Your task to perform on an android device: open sync settings in chrome Image 0: 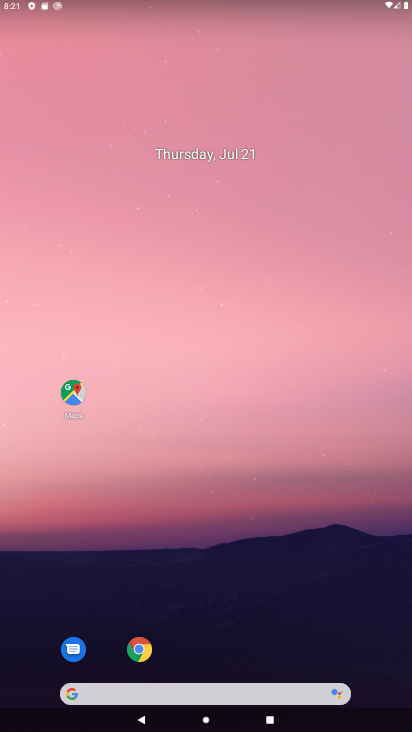
Step 0: click (144, 649)
Your task to perform on an android device: open sync settings in chrome Image 1: 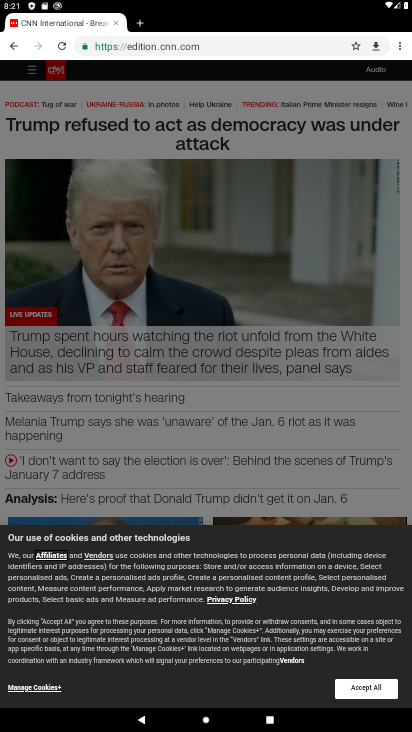
Step 1: click (399, 54)
Your task to perform on an android device: open sync settings in chrome Image 2: 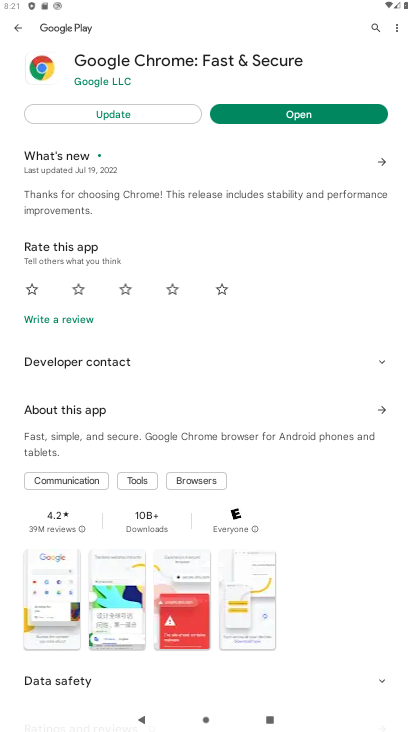
Step 2: click (257, 120)
Your task to perform on an android device: open sync settings in chrome Image 3: 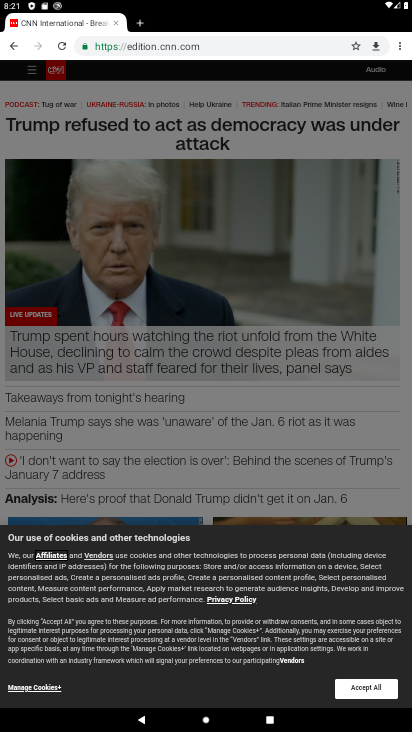
Step 3: click (394, 43)
Your task to perform on an android device: open sync settings in chrome Image 4: 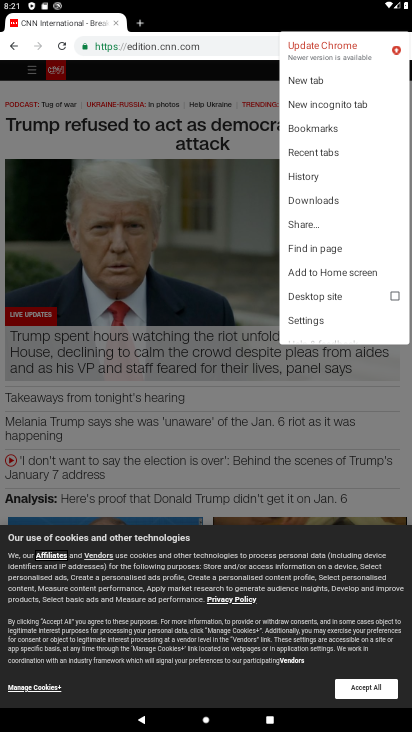
Step 4: click (306, 323)
Your task to perform on an android device: open sync settings in chrome Image 5: 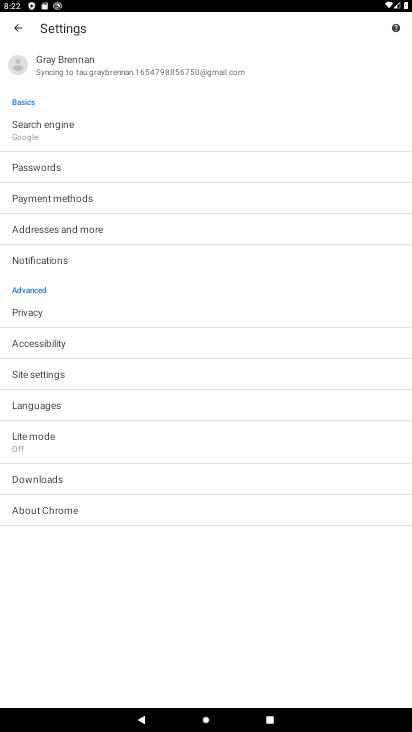
Step 5: click (73, 130)
Your task to perform on an android device: open sync settings in chrome Image 6: 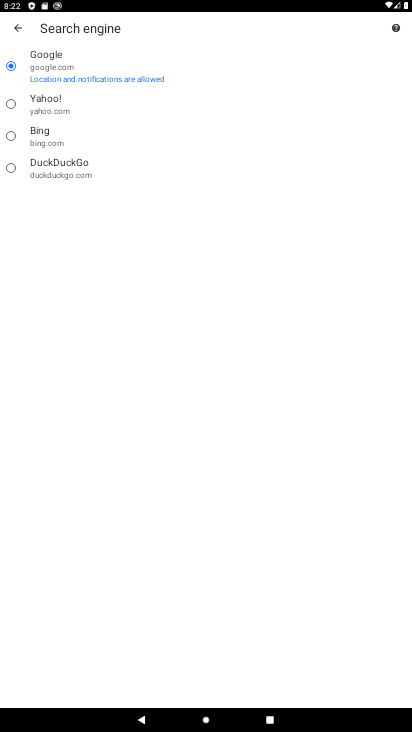
Step 6: click (24, 15)
Your task to perform on an android device: open sync settings in chrome Image 7: 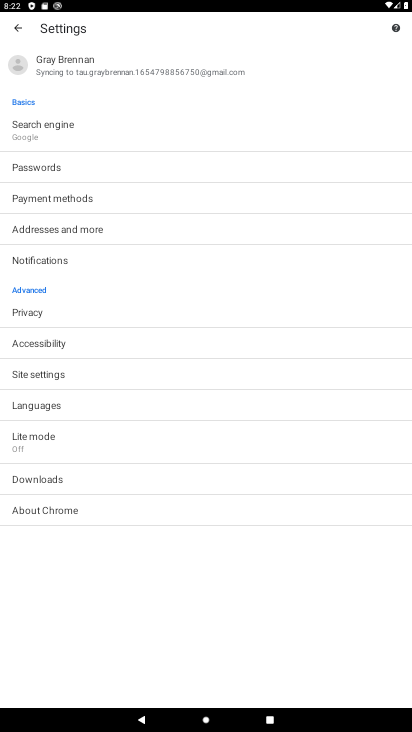
Step 7: click (132, 65)
Your task to perform on an android device: open sync settings in chrome Image 8: 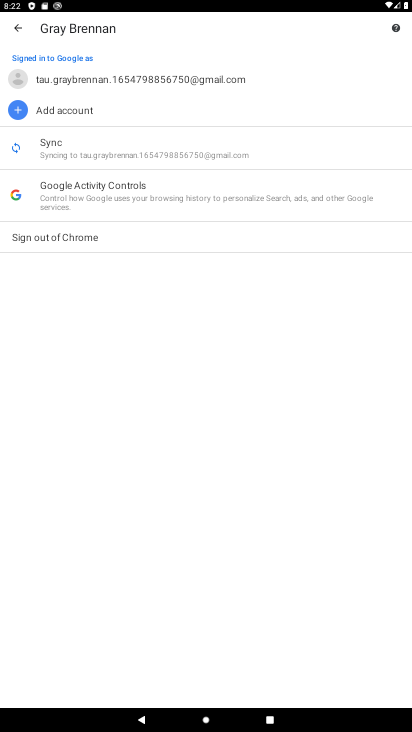
Step 8: click (125, 153)
Your task to perform on an android device: open sync settings in chrome Image 9: 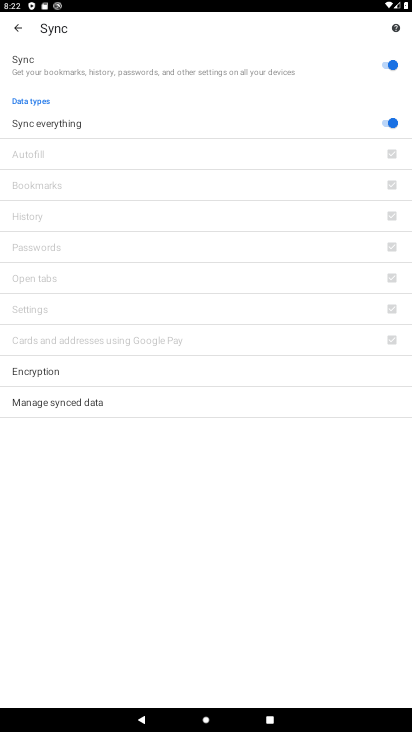
Step 9: task complete